Your task to perform on an android device: find photos in the google photos app Image 0: 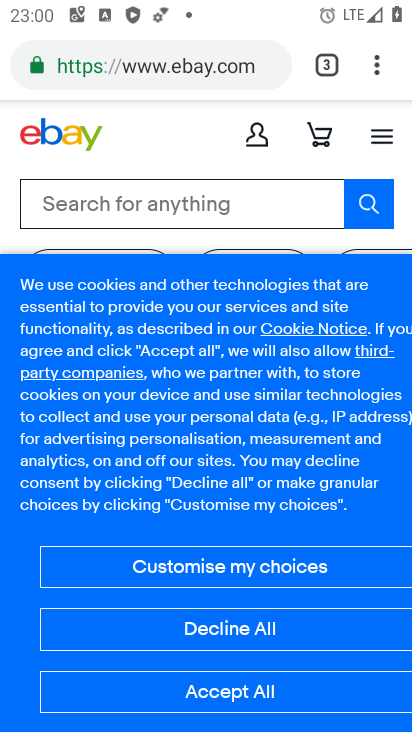
Step 0: press home button
Your task to perform on an android device: find photos in the google photos app Image 1: 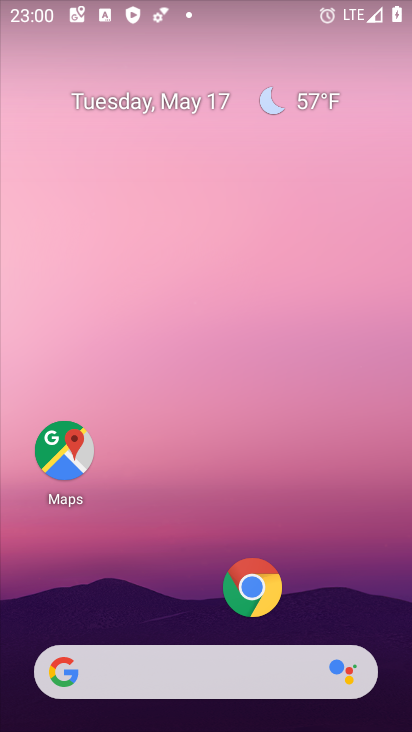
Step 1: drag from (284, 514) to (327, 182)
Your task to perform on an android device: find photos in the google photos app Image 2: 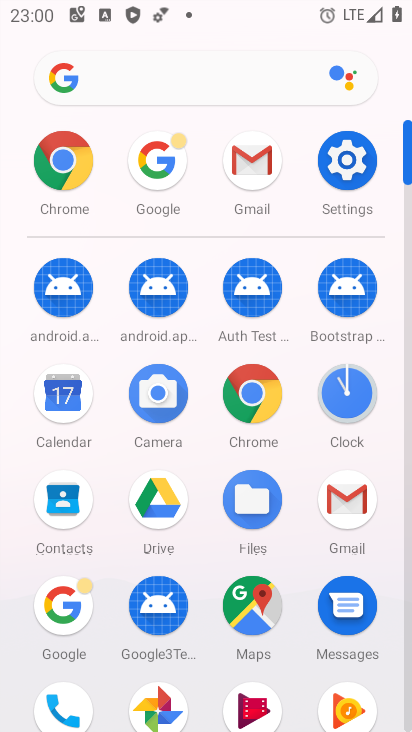
Step 2: click (163, 689)
Your task to perform on an android device: find photos in the google photos app Image 3: 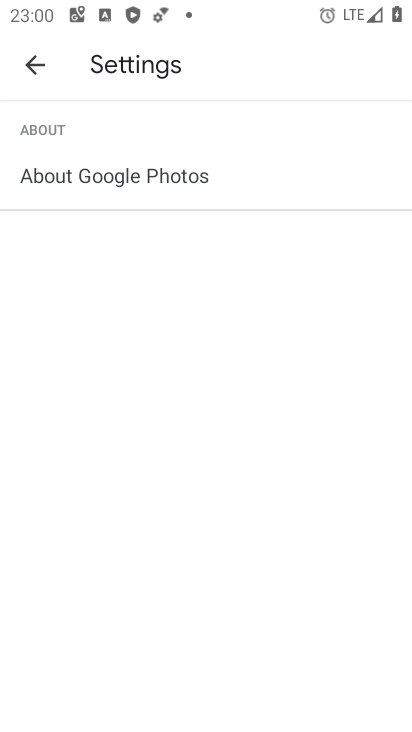
Step 3: click (36, 67)
Your task to perform on an android device: find photos in the google photos app Image 4: 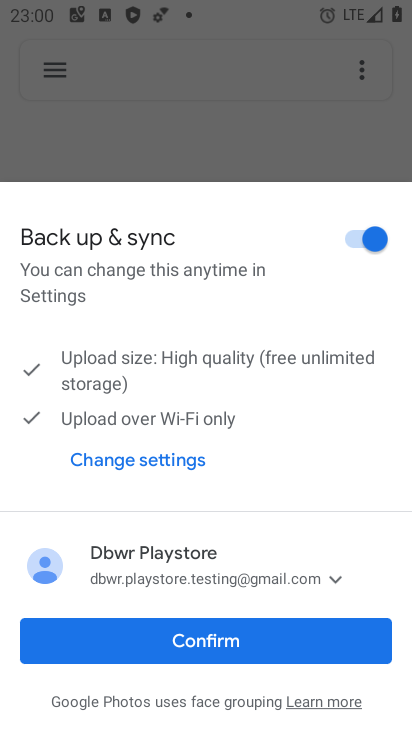
Step 4: click (247, 629)
Your task to perform on an android device: find photos in the google photos app Image 5: 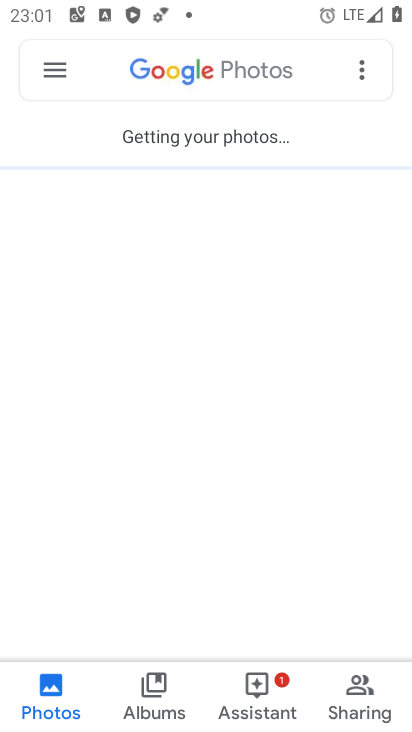
Step 5: task complete